Your task to perform on an android device: clear all cookies in the chrome app Image 0: 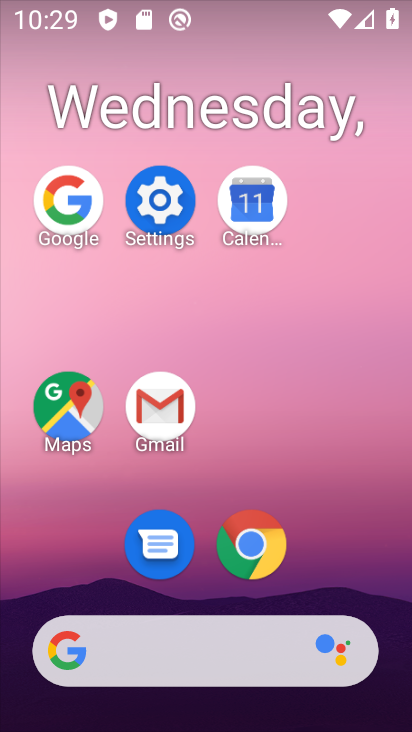
Step 0: click (156, 205)
Your task to perform on an android device: clear all cookies in the chrome app Image 1: 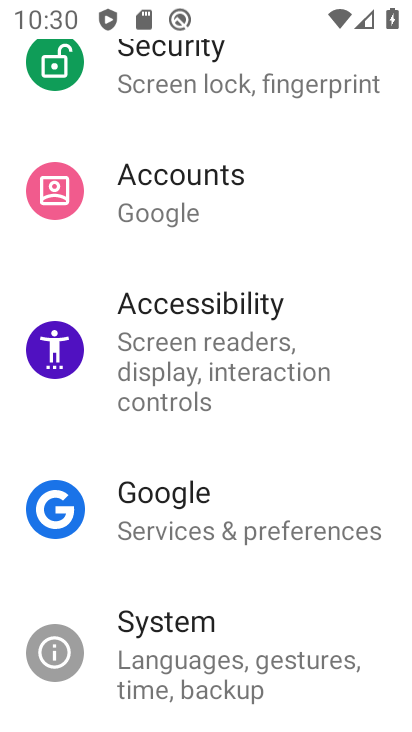
Step 1: press home button
Your task to perform on an android device: clear all cookies in the chrome app Image 2: 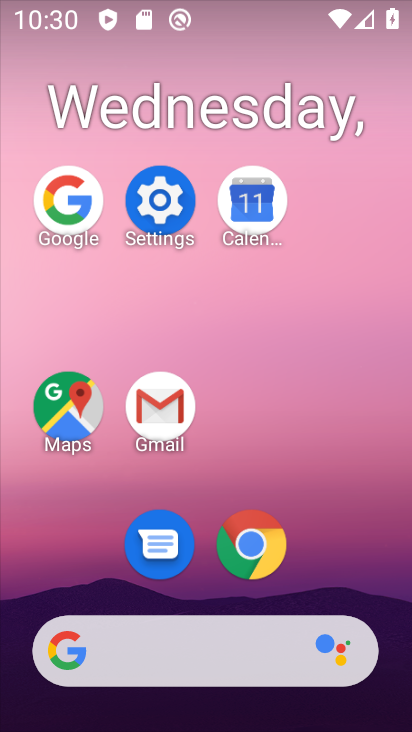
Step 2: click (274, 538)
Your task to perform on an android device: clear all cookies in the chrome app Image 3: 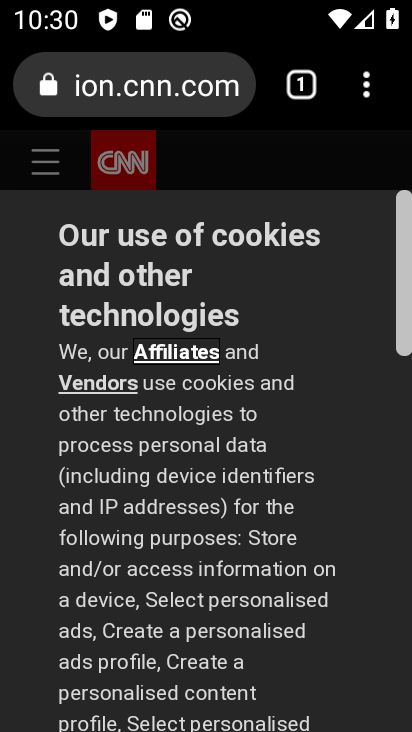
Step 3: click (359, 88)
Your task to perform on an android device: clear all cookies in the chrome app Image 4: 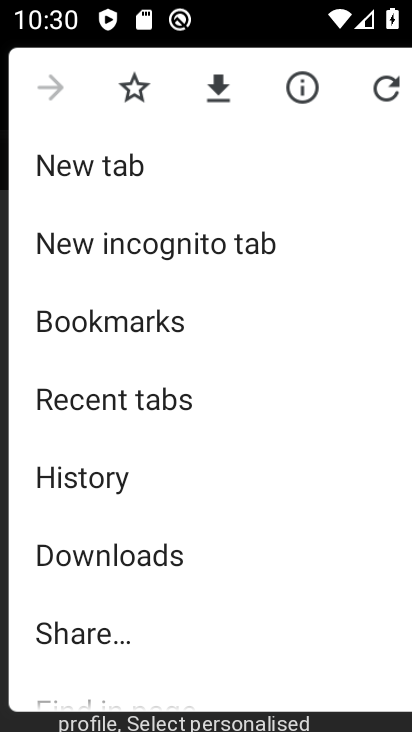
Step 4: drag from (229, 527) to (232, 184)
Your task to perform on an android device: clear all cookies in the chrome app Image 5: 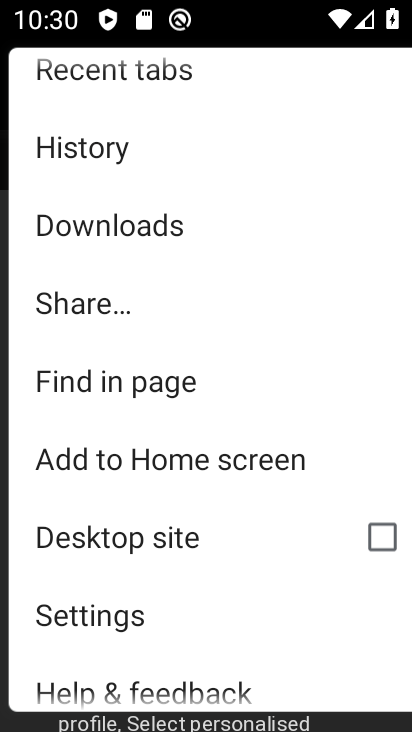
Step 5: drag from (246, 600) to (259, 156)
Your task to perform on an android device: clear all cookies in the chrome app Image 6: 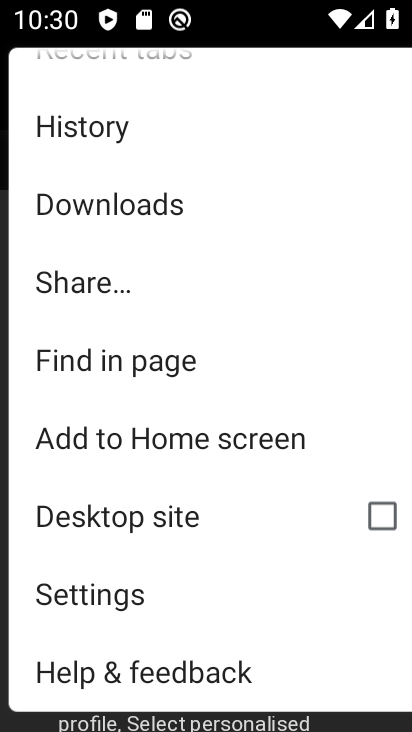
Step 6: click (164, 598)
Your task to perform on an android device: clear all cookies in the chrome app Image 7: 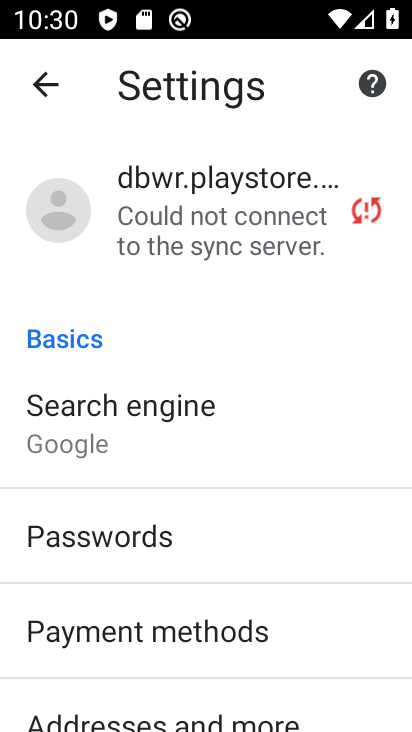
Step 7: drag from (188, 577) to (210, 174)
Your task to perform on an android device: clear all cookies in the chrome app Image 8: 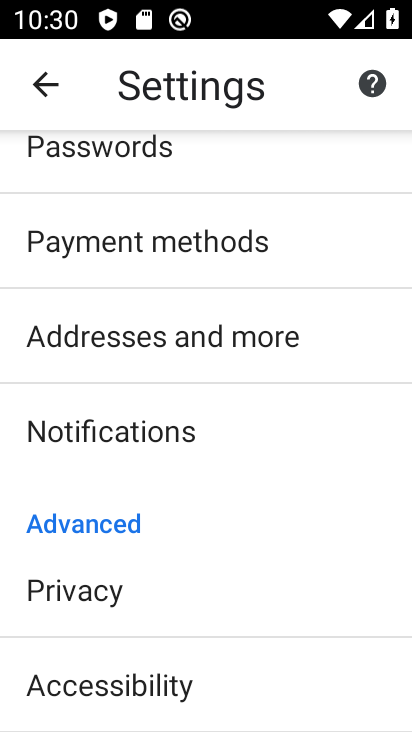
Step 8: drag from (214, 610) to (237, 205)
Your task to perform on an android device: clear all cookies in the chrome app Image 9: 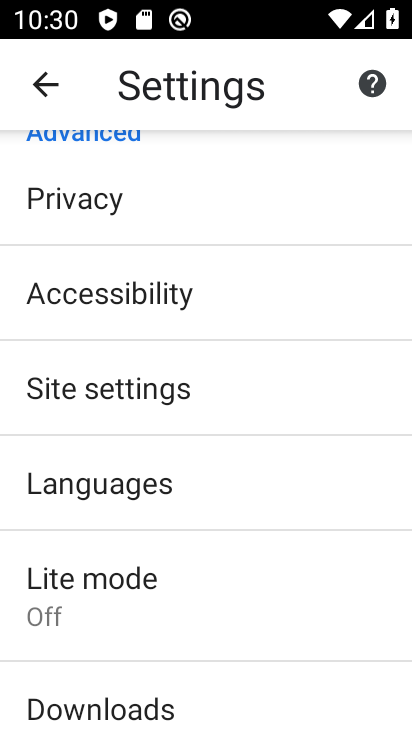
Step 9: click (131, 213)
Your task to perform on an android device: clear all cookies in the chrome app Image 10: 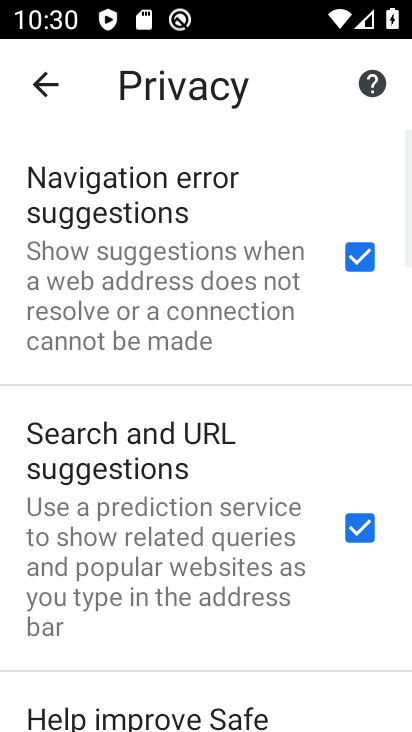
Step 10: drag from (270, 676) to (218, 119)
Your task to perform on an android device: clear all cookies in the chrome app Image 11: 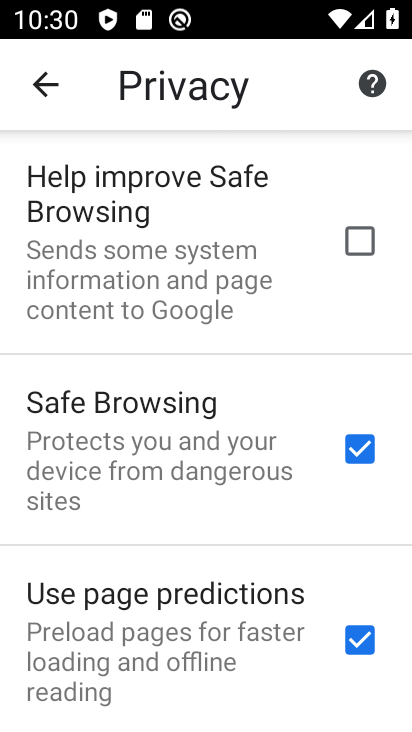
Step 11: drag from (302, 685) to (254, 209)
Your task to perform on an android device: clear all cookies in the chrome app Image 12: 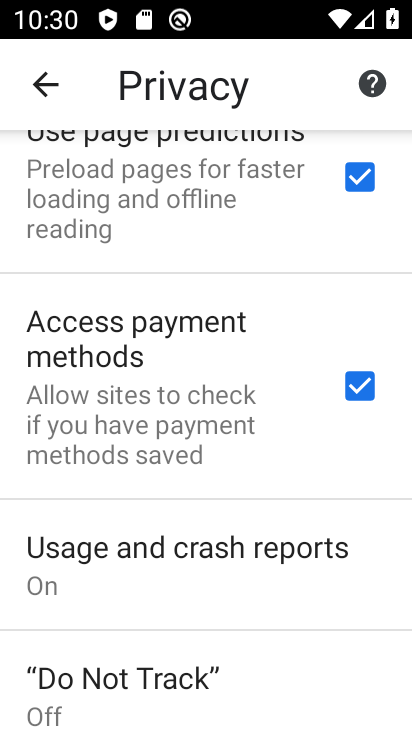
Step 12: drag from (230, 553) to (205, 229)
Your task to perform on an android device: clear all cookies in the chrome app Image 13: 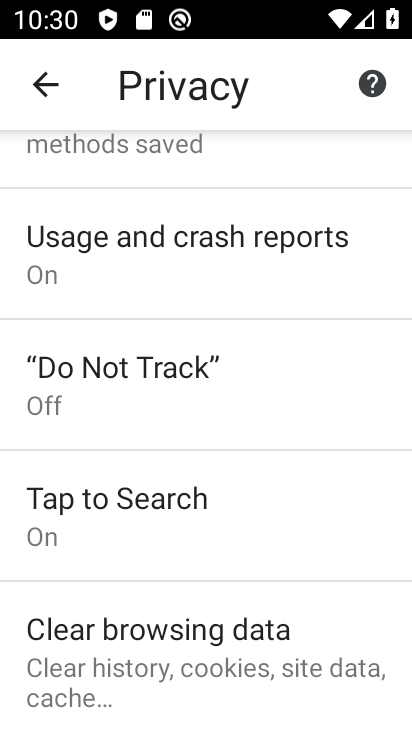
Step 13: drag from (264, 678) to (225, 355)
Your task to perform on an android device: clear all cookies in the chrome app Image 14: 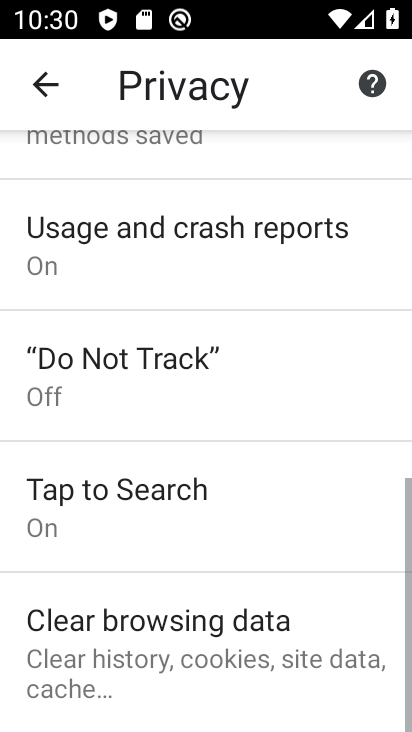
Step 14: click (262, 640)
Your task to perform on an android device: clear all cookies in the chrome app Image 15: 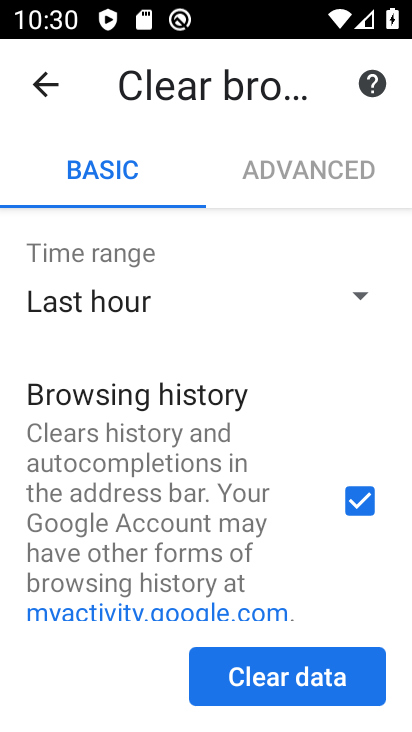
Step 15: drag from (271, 584) to (204, 214)
Your task to perform on an android device: clear all cookies in the chrome app Image 16: 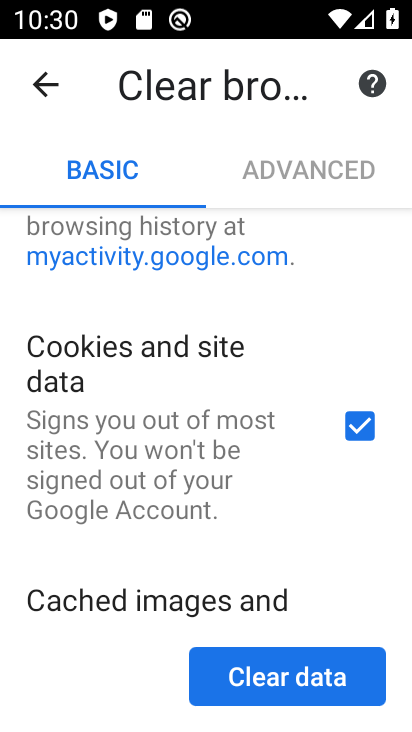
Step 16: drag from (241, 524) to (205, 233)
Your task to perform on an android device: clear all cookies in the chrome app Image 17: 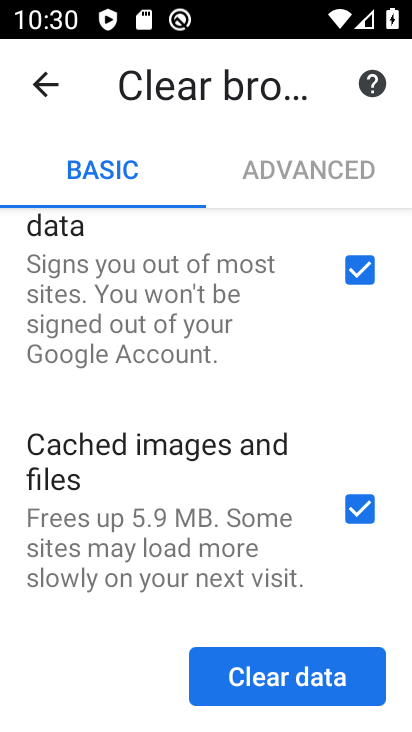
Step 17: drag from (237, 578) to (199, 254)
Your task to perform on an android device: clear all cookies in the chrome app Image 18: 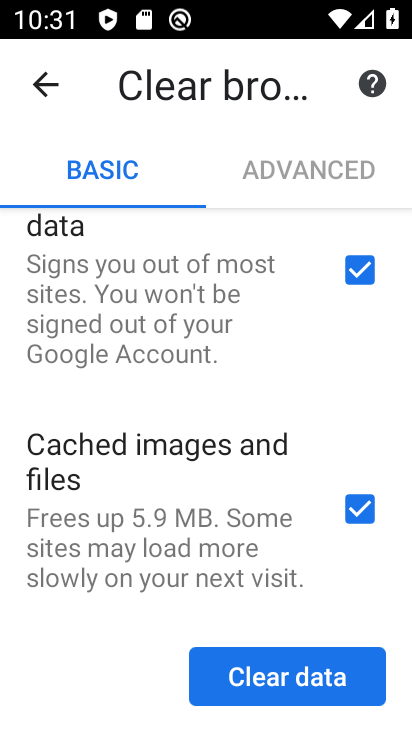
Step 18: click (265, 673)
Your task to perform on an android device: clear all cookies in the chrome app Image 19: 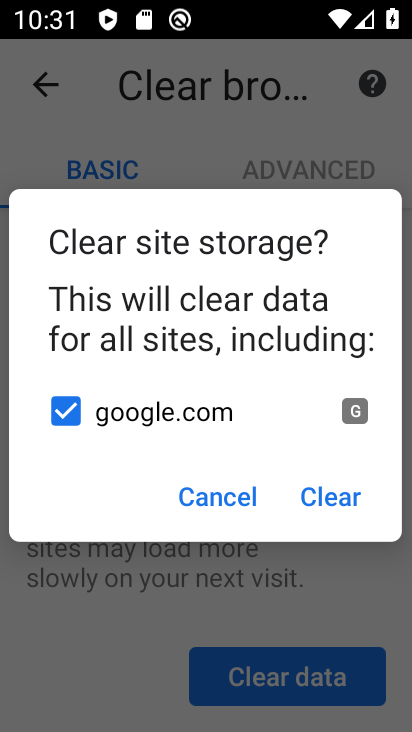
Step 19: click (348, 503)
Your task to perform on an android device: clear all cookies in the chrome app Image 20: 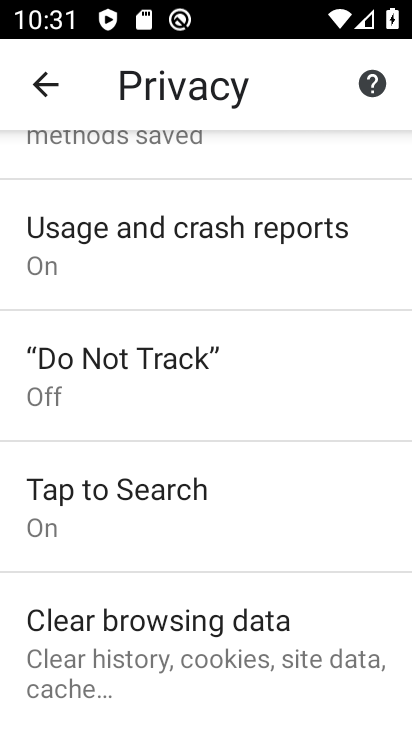
Step 20: task complete